Your task to perform on an android device: clear history in the chrome app Image 0: 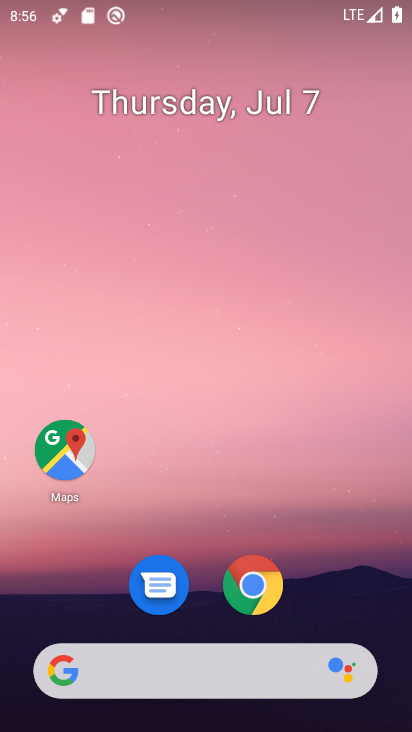
Step 0: click (257, 575)
Your task to perform on an android device: clear history in the chrome app Image 1: 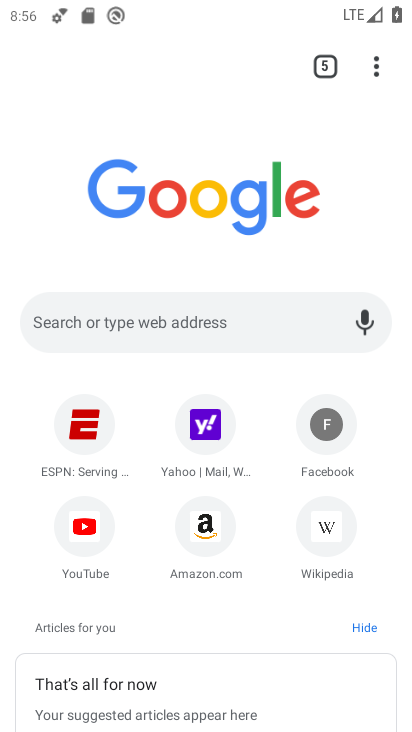
Step 1: click (371, 64)
Your task to perform on an android device: clear history in the chrome app Image 2: 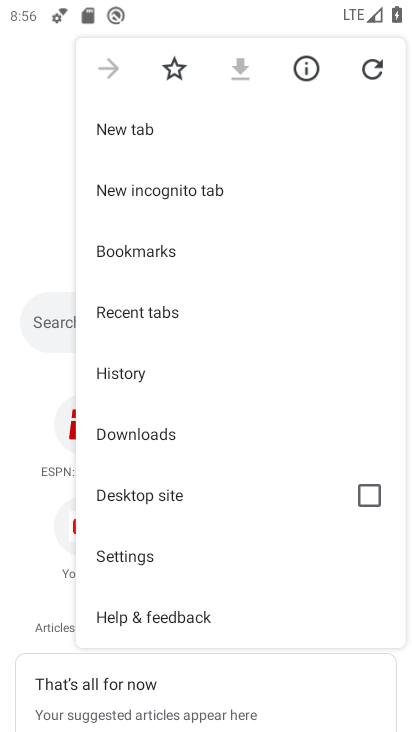
Step 2: click (141, 369)
Your task to perform on an android device: clear history in the chrome app Image 3: 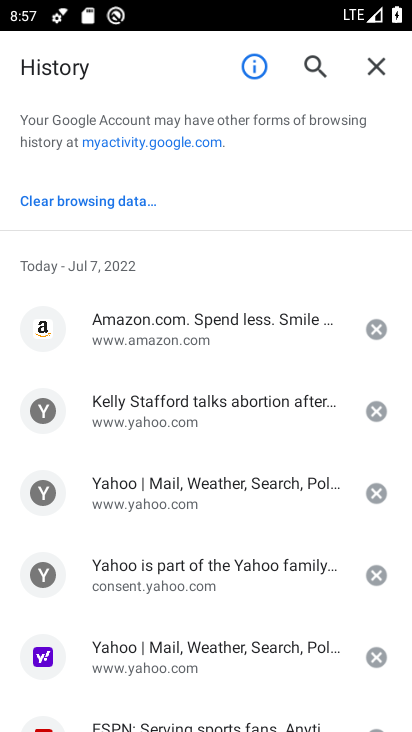
Step 3: click (104, 200)
Your task to perform on an android device: clear history in the chrome app Image 4: 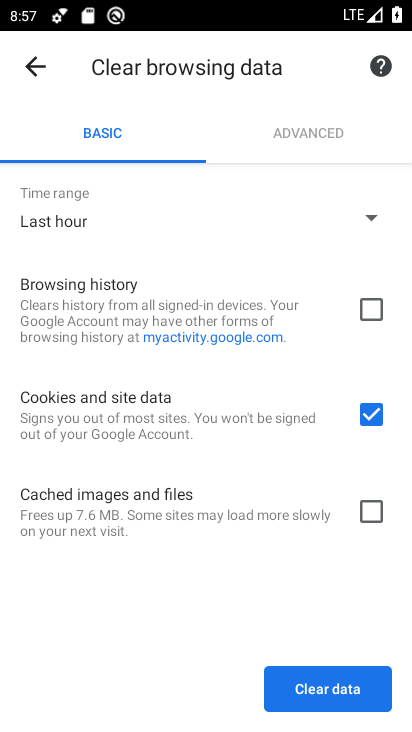
Step 4: click (369, 306)
Your task to perform on an android device: clear history in the chrome app Image 5: 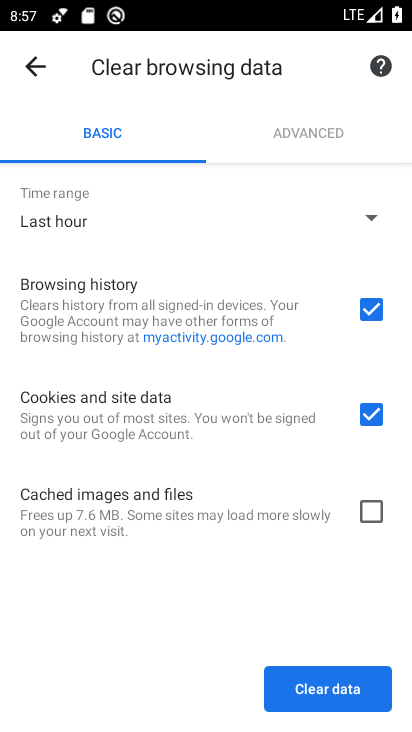
Step 5: click (373, 513)
Your task to perform on an android device: clear history in the chrome app Image 6: 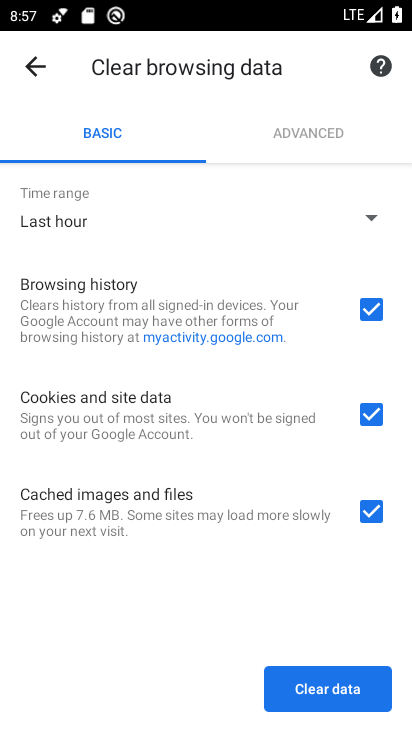
Step 6: click (328, 684)
Your task to perform on an android device: clear history in the chrome app Image 7: 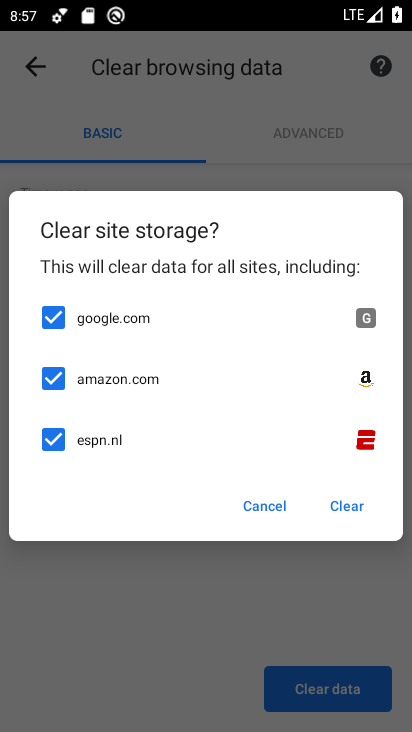
Step 7: click (347, 503)
Your task to perform on an android device: clear history in the chrome app Image 8: 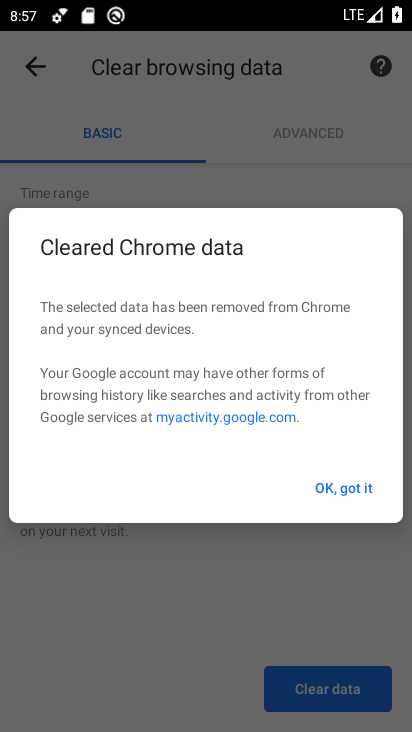
Step 8: click (347, 493)
Your task to perform on an android device: clear history in the chrome app Image 9: 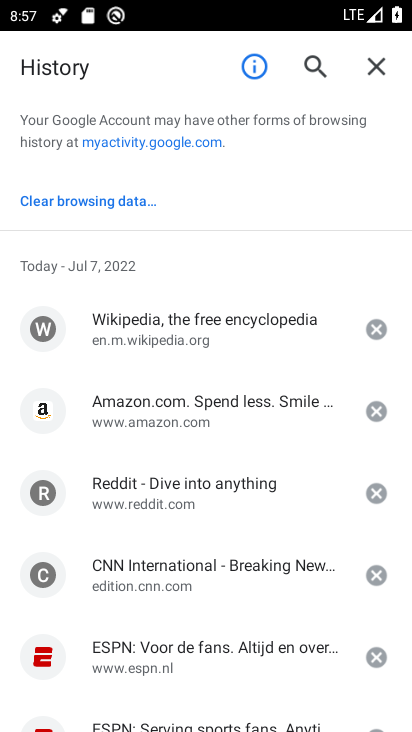
Step 9: task complete